Your task to perform on an android device: Open Chrome and go to settings Image 0: 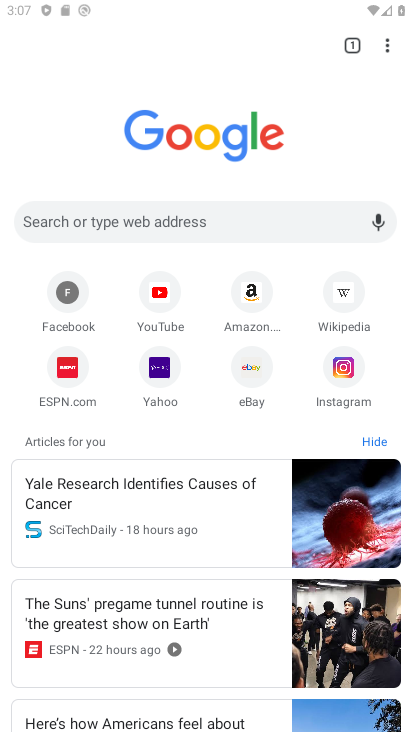
Step 0: drag from (231, 651) to (208, 268)
Your task to perform on an android device: Open Chrome and go to settings Image 1: 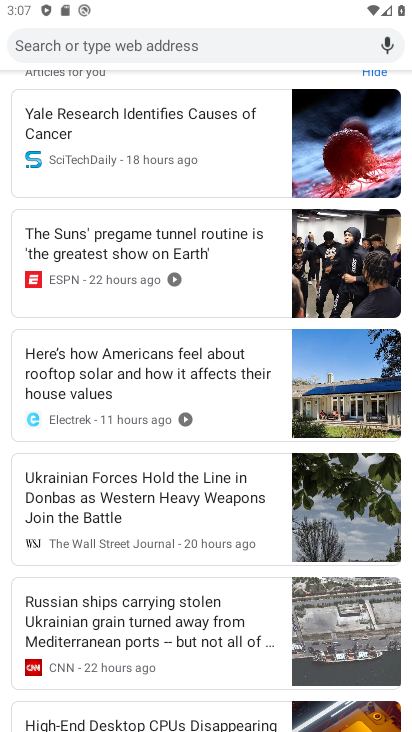
Step 1: drag from (369, 150) to (361, 635)
Your task to perform on an android device: Open Chrome and go to settings Image 2: 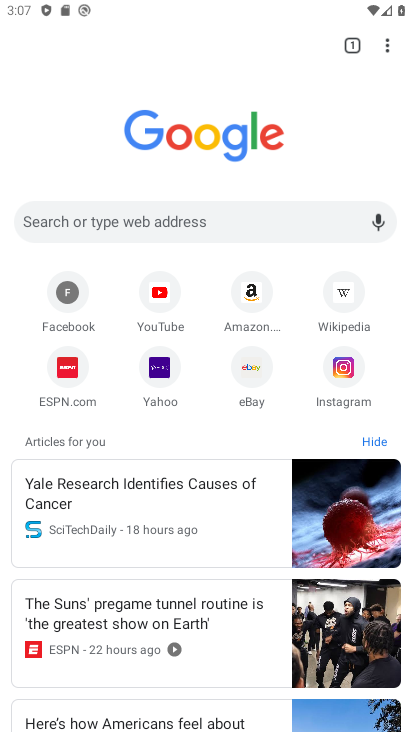
Step 2: click (389, 60)
Your task to perform on an android device: Open Chrome and go to settings Image 3: 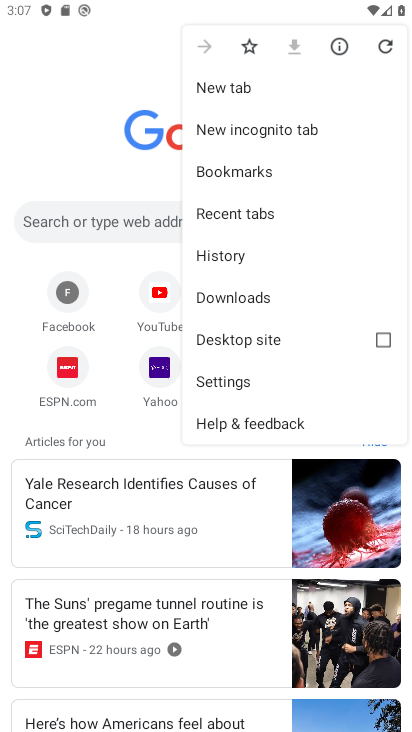
Step 3: click (213, 386)
Your task to perform on an android device: Open Chrome and go to settings Image 4: 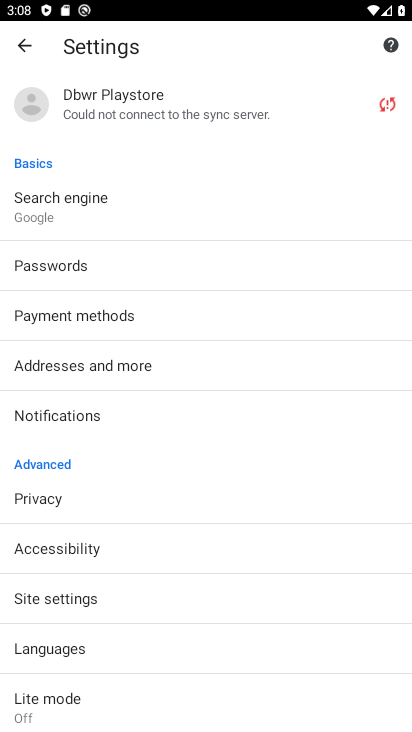
Step 4: task complete